Your task to perform on an android device: Go to CNN.com Image 0: 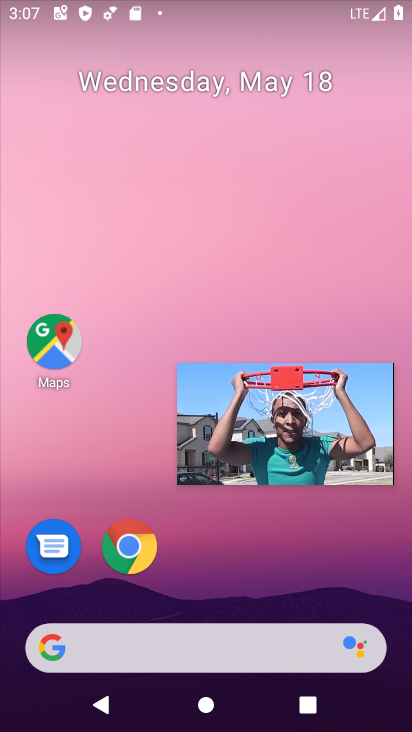
Step 0: click (138, 543)
Your task to perform on an android device: Go to CNN.com Image 1: 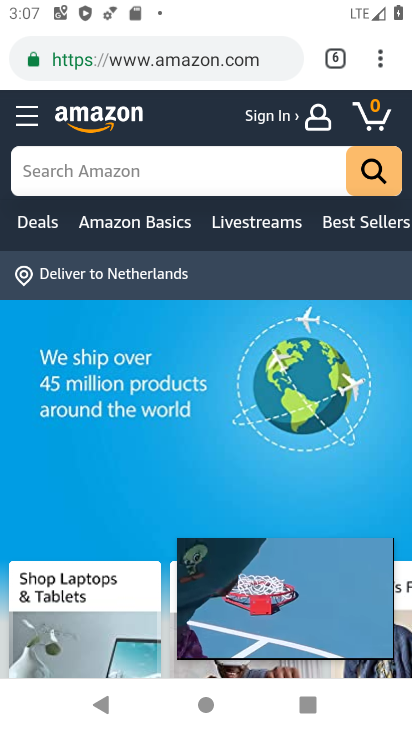
Step 1: drag from (305, 569) to (405, 364)
Your task to perform on an android device: Go to CNN.com Image 2: 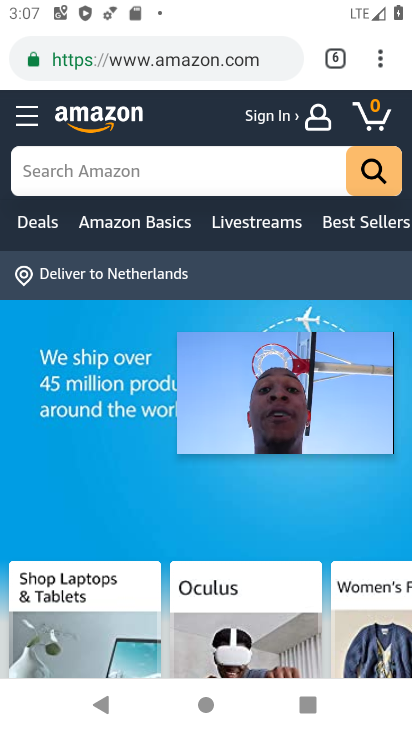
Step 2: click (383, 63)
Your task to perform on an android device: Go to CNN.com Image 3: 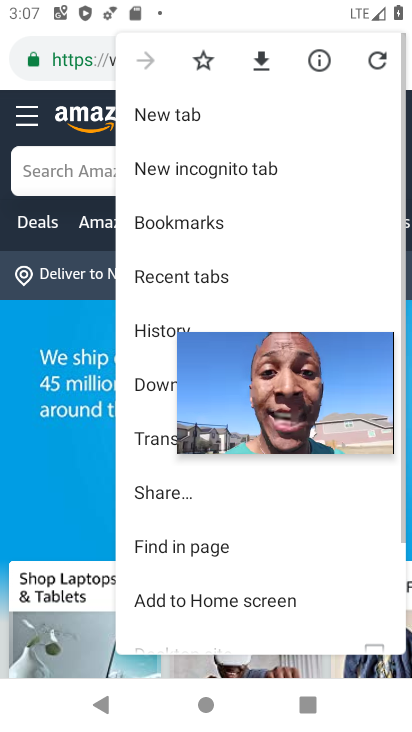
Step 3: click (174, 109)
Your task to perform on an android device: Go to CNN.com Image 4: 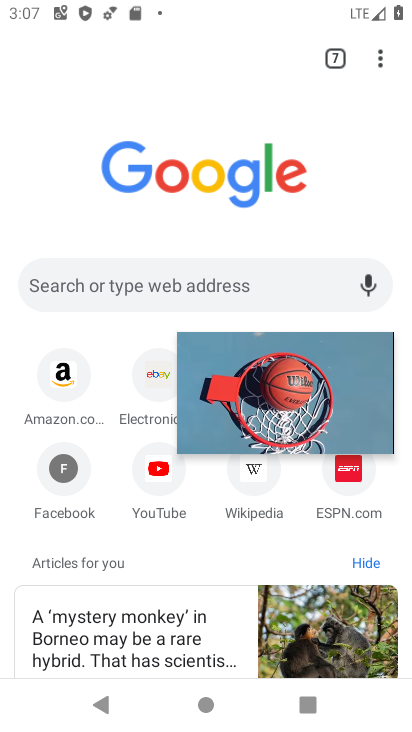
Step 4: click (112, 282)
Your task to perform on an android device: Go to CNN.com Image 5: 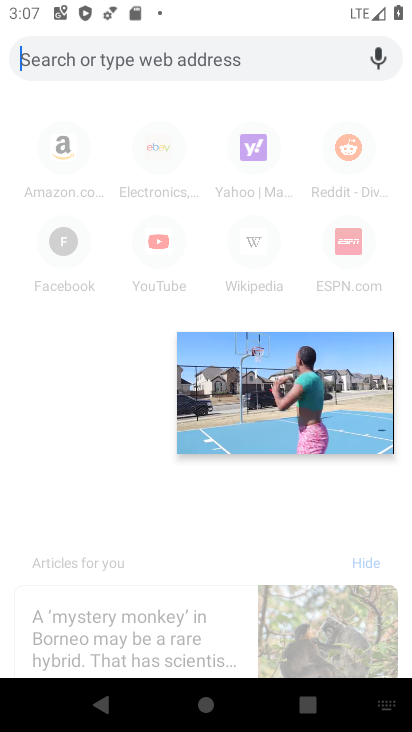
Step 5: type "CNN.com"
Your task to perform on an android device: Go to CNN.com Image 6: 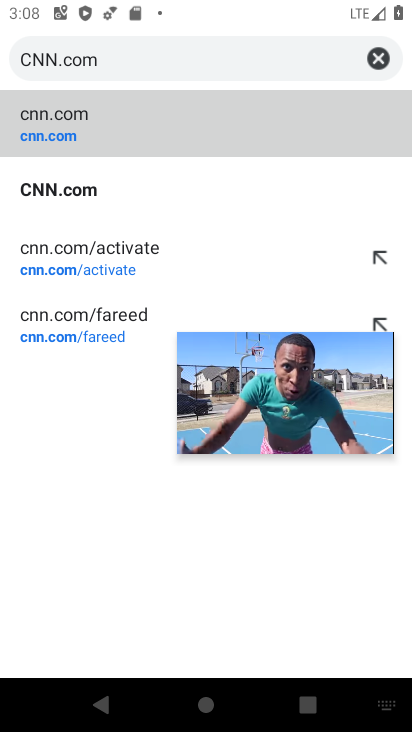
Step 6: click (76, 113)
Your task to perform on an android device: Go to CNN.com Image 7: 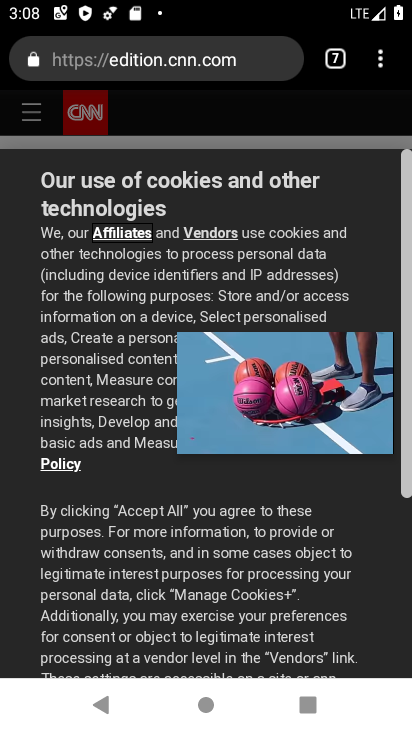
Step 7: task complete